Your task to perform on an android device: Check the news Image 0: 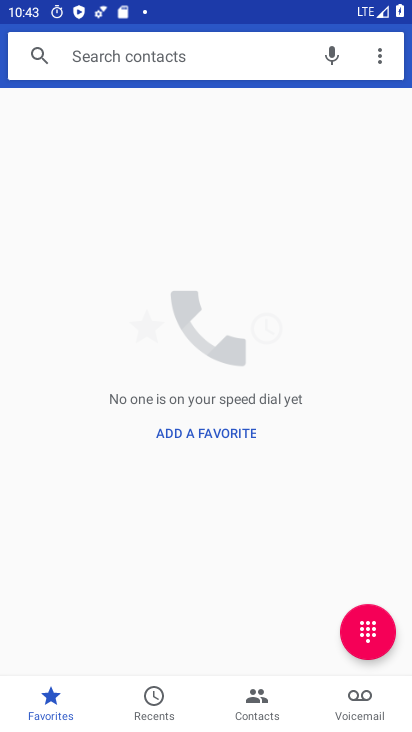
Step 0: press home button
Your task to perform on an android device: Check the news Image 1: 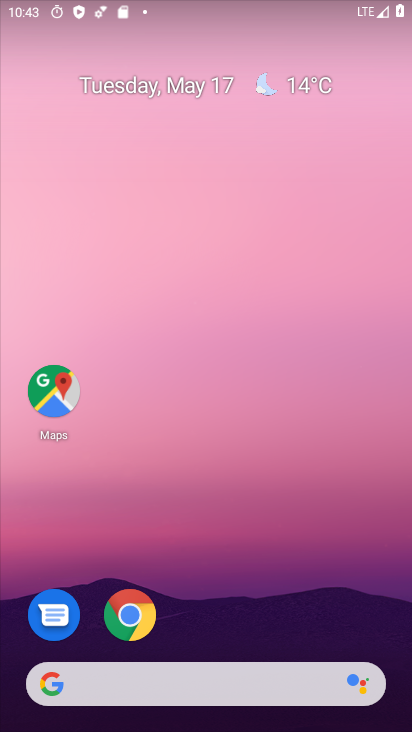
Step 1: click (58, 685)
Your task to perform on an android device: Check the news Image 2: 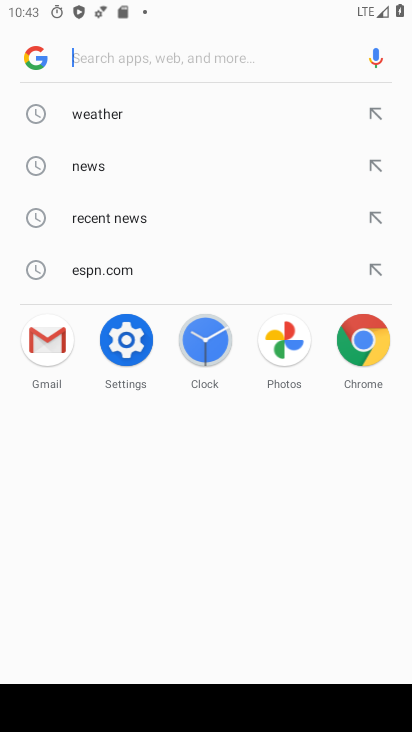
Step 2: click (97, 167)
Your task to perform on an android device: Check the news Image 3: 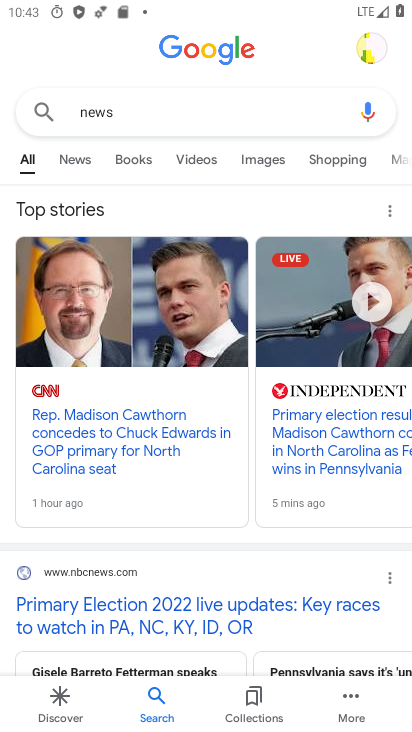
Step 3: click (81, 162)
Your task to perform on an android device: Check the news Image 4: 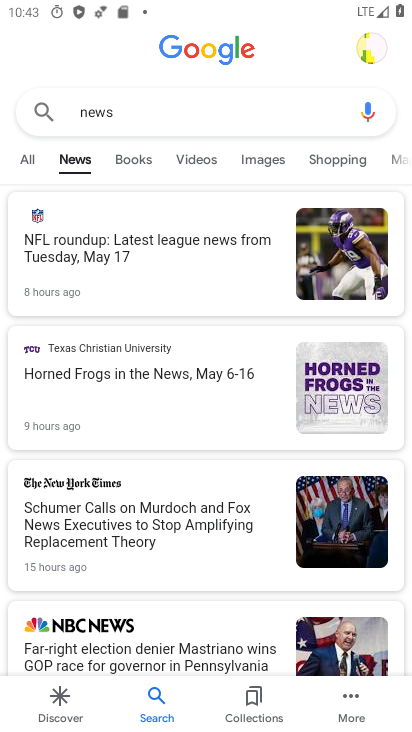
Step 4: task complete